Your task to perform on an android device: Go to Reddit.com Image 0: 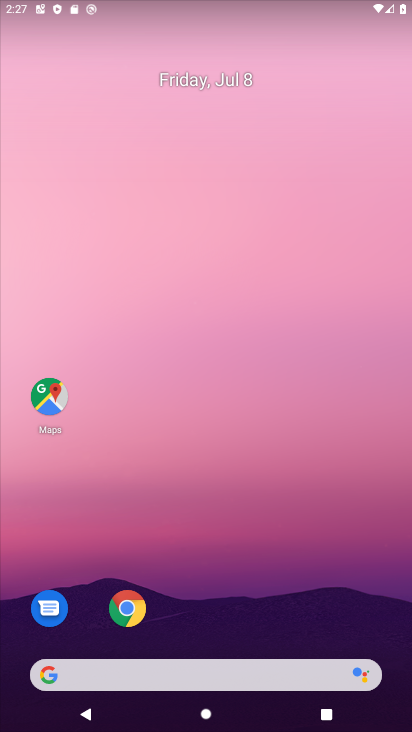
Step 0: drag from (288, 646) to (247, 3)
Your task to perform on an android device: Go to Reddit.com Image 1: 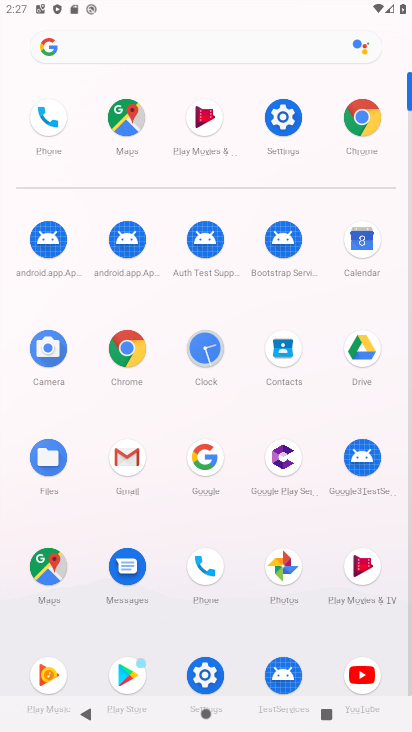
Step 1: click (127, 347)
Your task to perform on an android device: Go to Reddit.com Image 2: 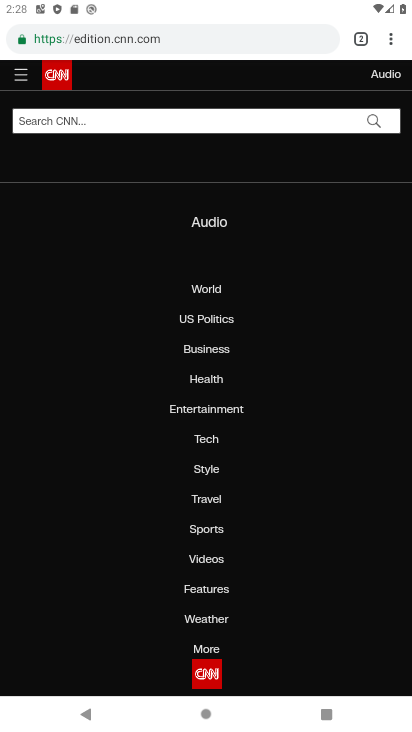
Step 2: click (176, 32)
Your task to perform on an android device: Go to Reddit.com Image 3: 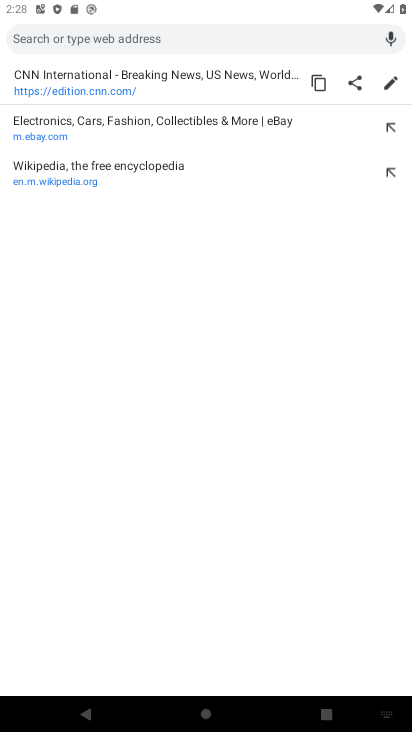
Step 3: type "reddit.com"
Your task to perform on an android device: Go to Reddit.com Image 4: 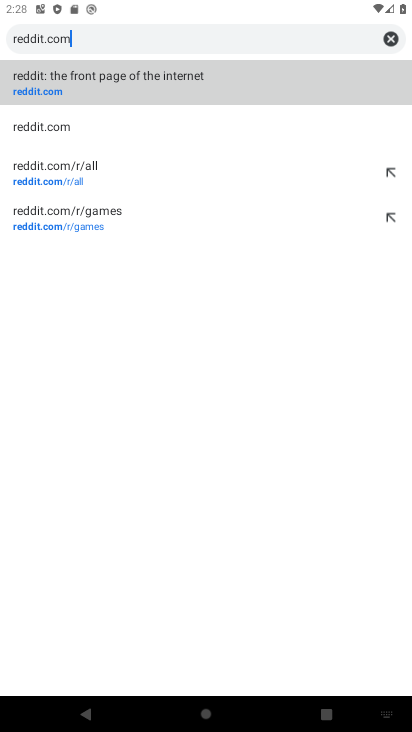
Step 4: click (99, 99)
Your task to perform on an android device: Go to Reddit.com Image 5: 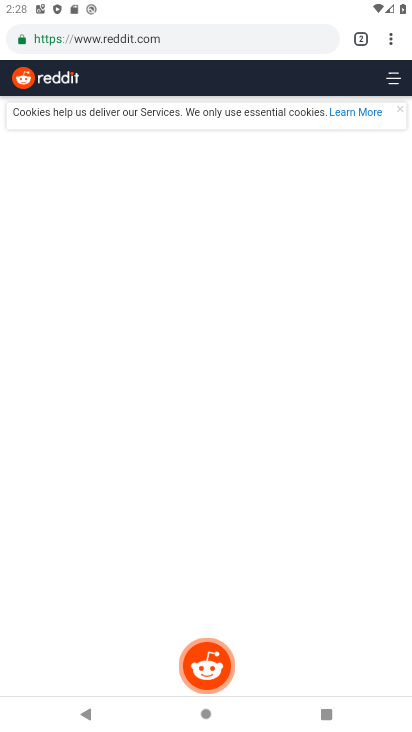
Step 5: task complete